Your task to perform on an android device: Open my contact list Image 0: 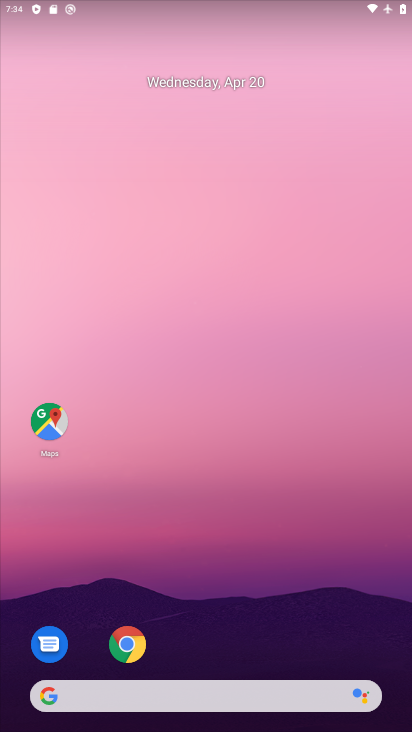
Step 0: drag from (306, 624) to (280, 40)
Your task to perform on an android device: Open my contact list Image 1: 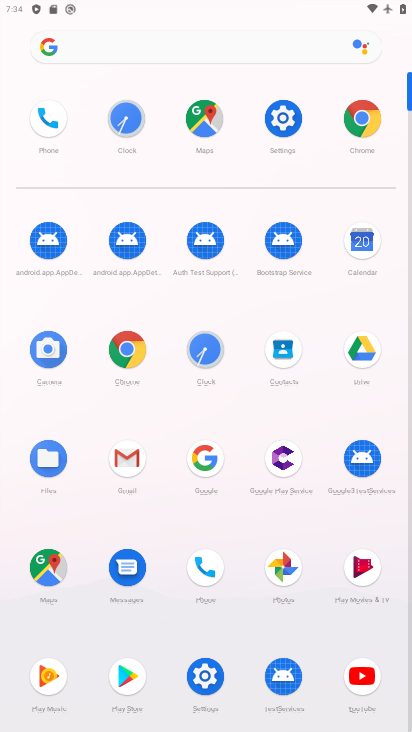
Step 1: drag from (188, 621) to (196, 305)
Your task to perform on an android device: Open my contact list Image 2: 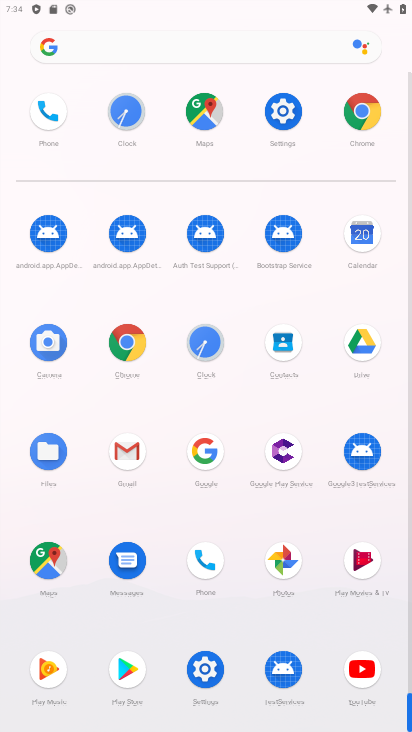
Step 2: click (281, 341)
Your task to perform on an android device: Open my contact list Image 3: 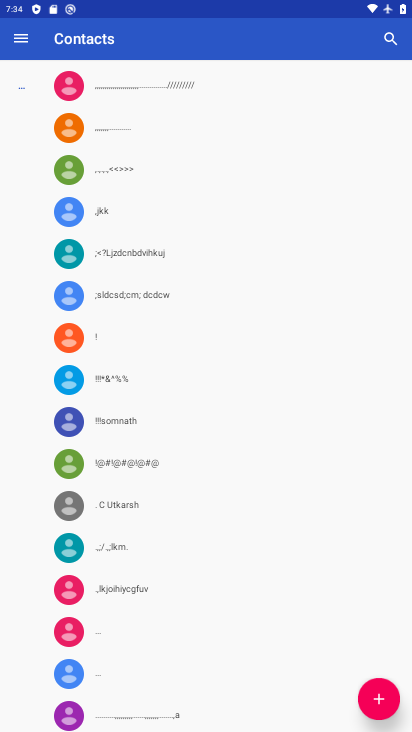
Step 3: task complete